Your task to perform on an android device: What's the weather? Image 0: 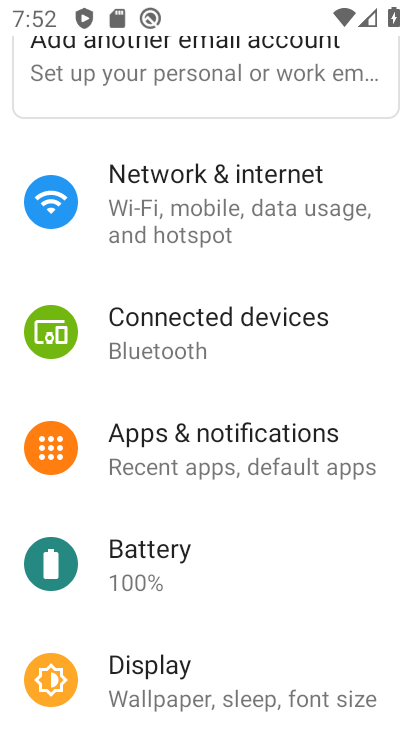
Step 0: press home button
Your task to perform on an android device: What's the weather? Image 1: 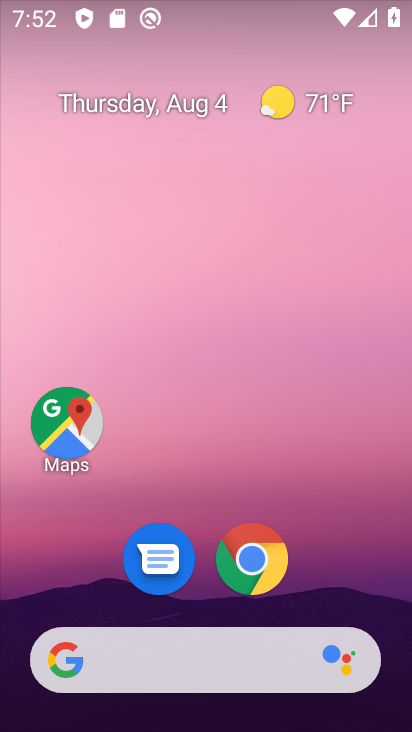
Step 1: drag from (137, 587) to (142, 19)
Your task to perform on an android device: What's the weather? Image 2: 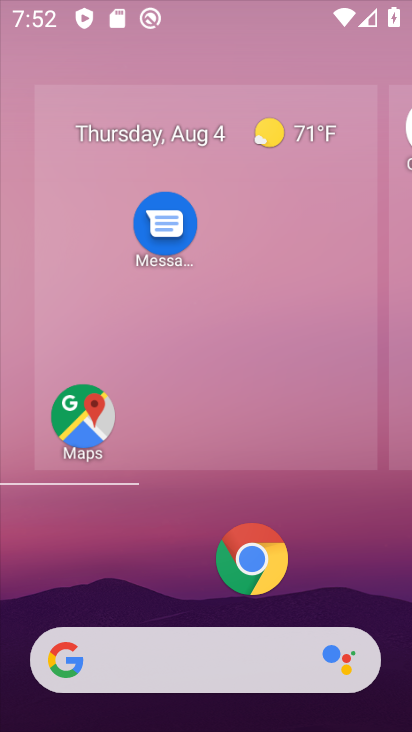
Step 2: click (180, 576)
Your task to perform on an android device: What's the weather? Image 3: 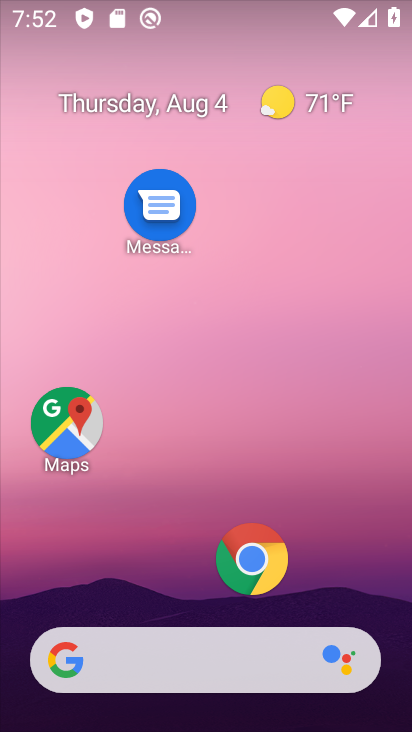
Step 3: drag from (176, 629) to (146, 0)
Your task to perform on an android device: What's the weather? Image 4: 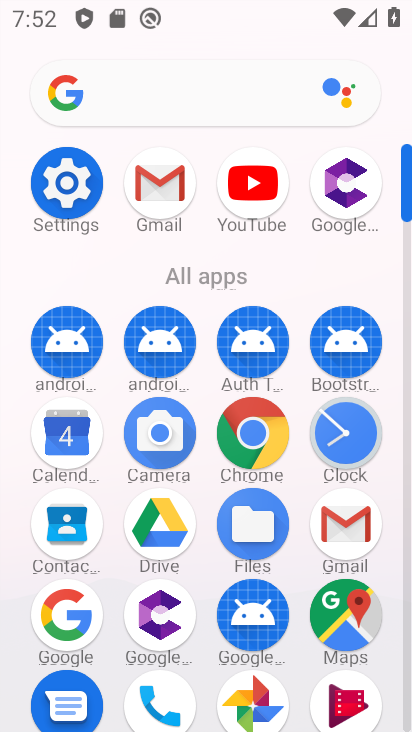
Step 4: drag from (199, 593) to (117, 166)
Your task to perform on an android device: What's the weather? Image 5: 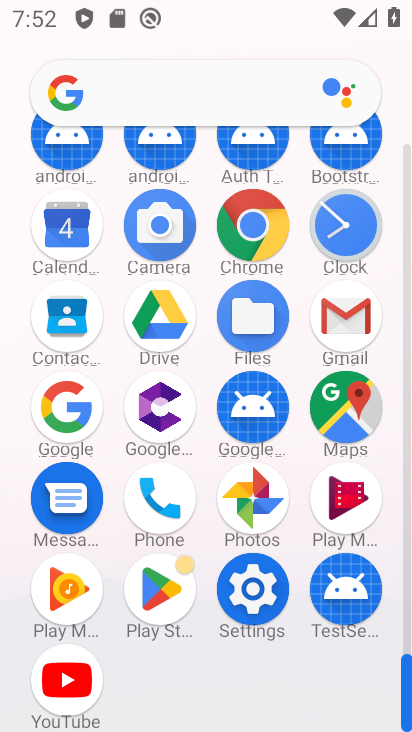
Step 5: click (48, 421)
Your task to perform on an android device: What's the weather? Image 6: 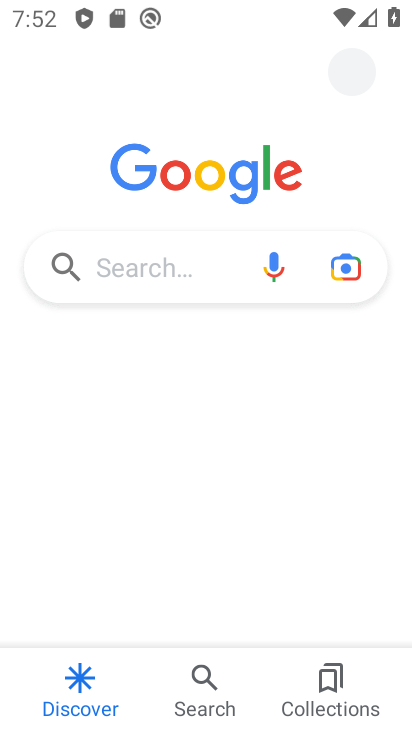
Step 6: click (130, 270)
Your task to perform on an android device: What's the weather? Image 7: 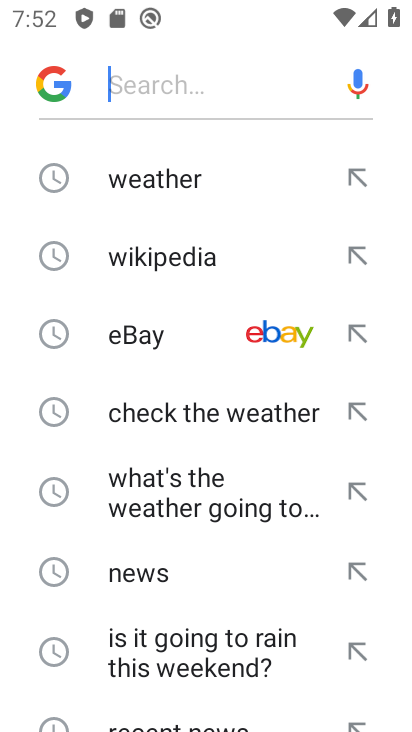
Step 7: click (122, 171)
Your task to perform on an android device: What's the weather? Image 8: 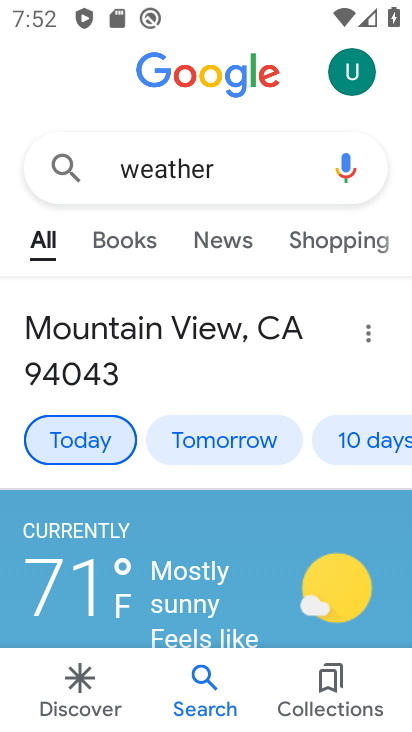
Step 8: task complete